Your task to perform on an android device: Open calendar and show me the fourth week of next month Image 0: 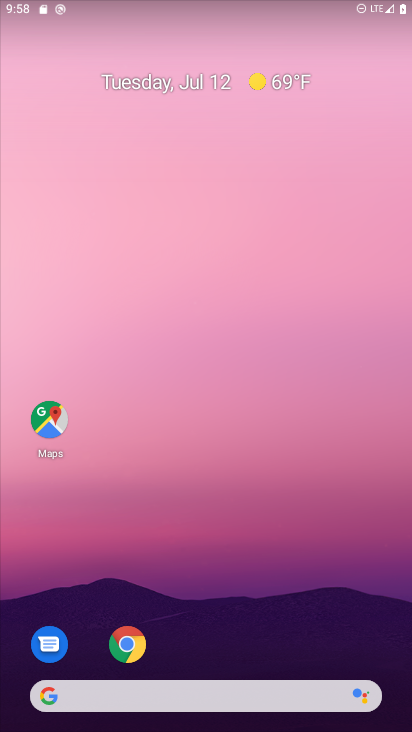
Step 0: drag from (202, 663) to (192, 127)
Your task to perform on an android device: Open calendar and show me the fourth week of next month Image 1: 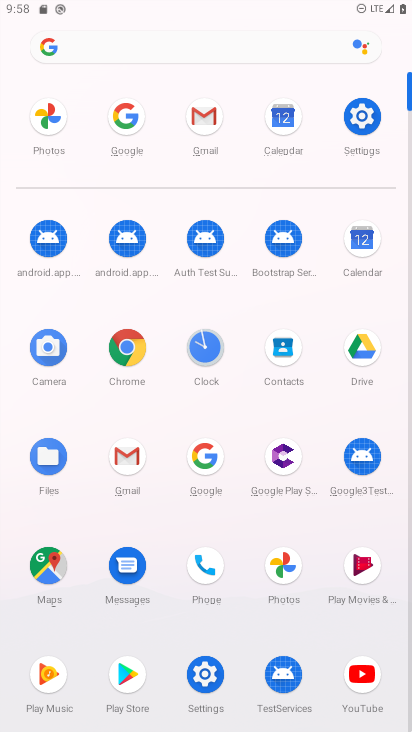
Step 1: click (358, 235)
Your task to perform on an android device: Open calendar and show me the fourth week of next month Image 2: 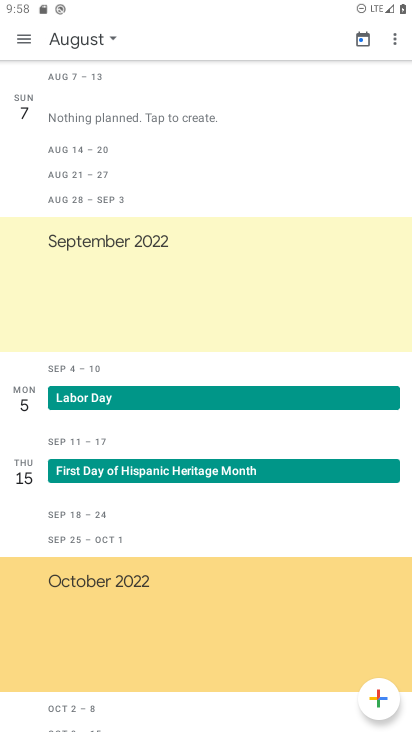
Step 2: click (21, 37)
Your task to perform on an android device: Open calendar and show me the fourth week of next month Image 3: 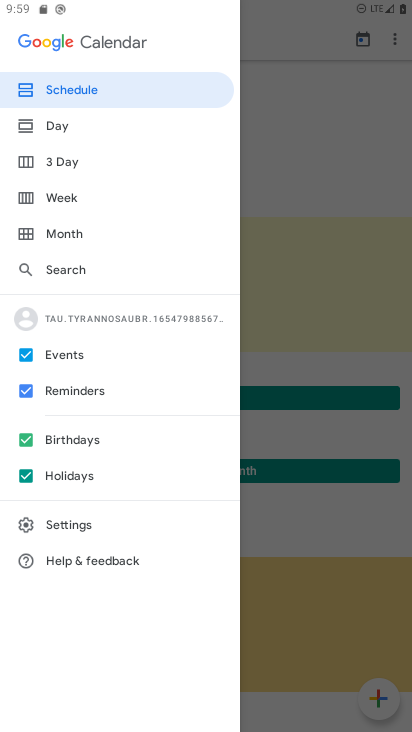
Step 3: click (59, 196)
Your task to perform on an android device: Open calendar and show me the fourth week of next month Image 4: 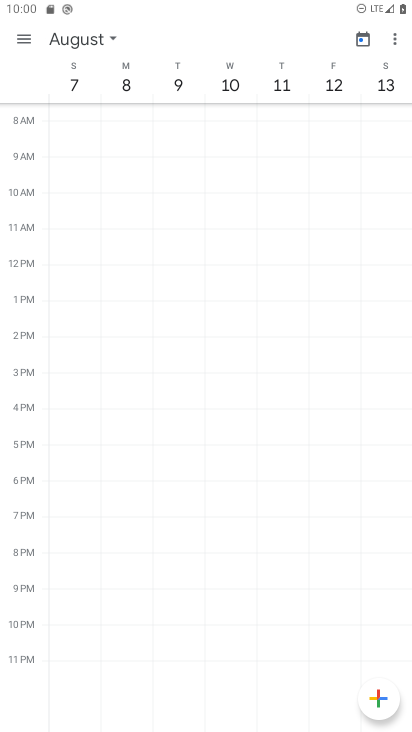
Step 4: drag from (339, 79) to (8, 76)
Your task to perform on an android device: Open calendar and show me the fourth week of next month Image 5: 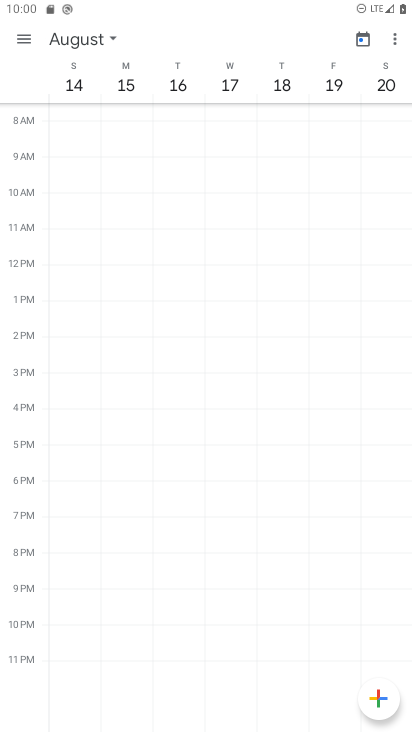
Step 5: drag from (332, 82) to (1, 123)
Your task to perform on an android device: Open calendar and show me the fourth week of next month Image 6: 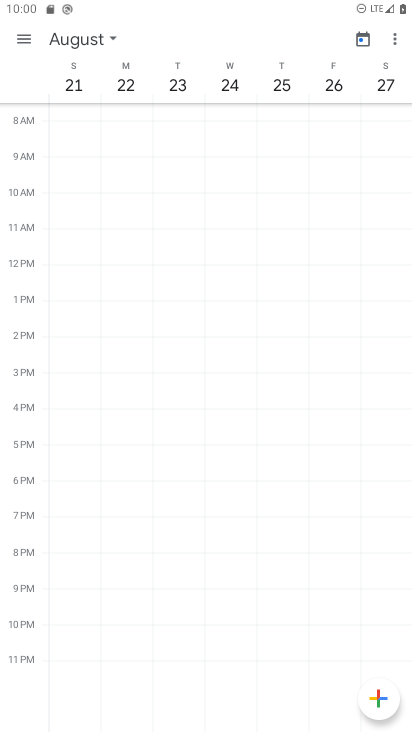
Step 6: click (76, 84)
Your task to perform on an android device: Open calendar and show me the fourth week of next month Image 7: 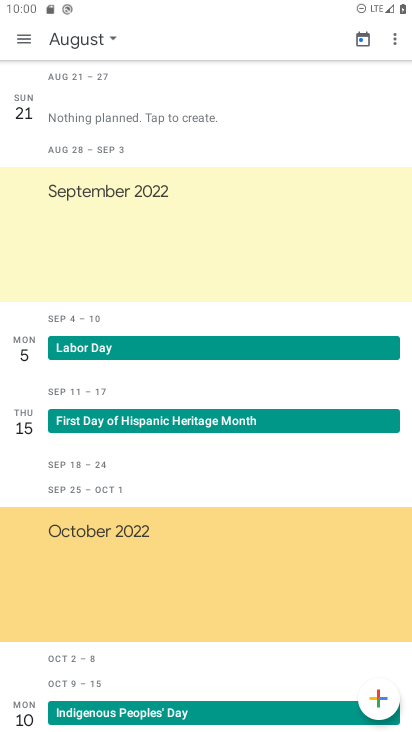
Step 7: task complete